Your task to perform on an android device: Open internet settings Image 0: 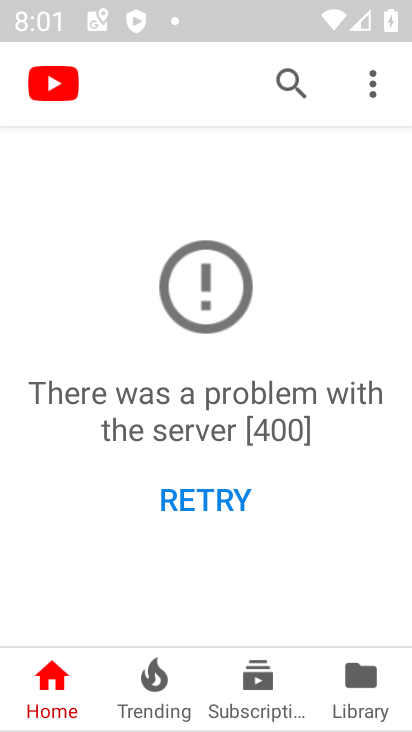
Step 0: press home button
Your task to perform on an android device: Open internet settings Image 1: 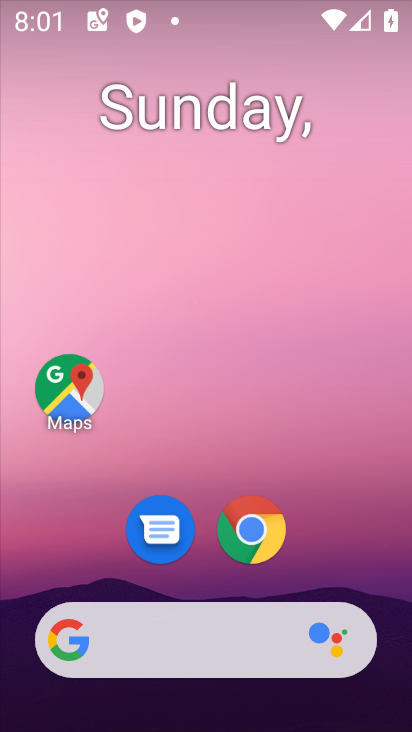
Step 1: drag from (346, 533) to (348, 152)
Your task to perform on an android device: Open internet settings Image 2: 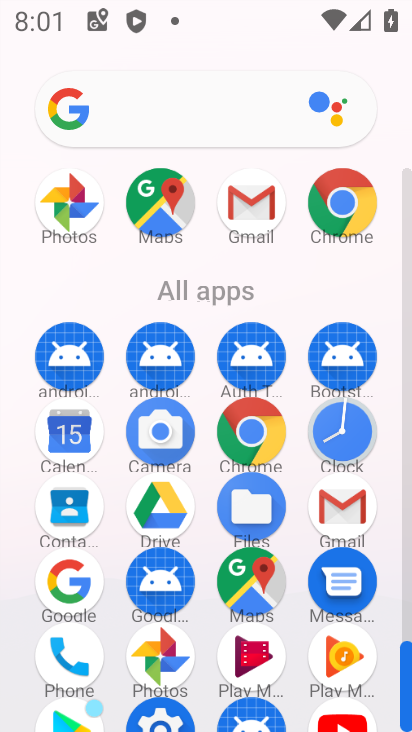
Step 2: drag from (216, 691) to (192, 338)
Your task to perform on an android device: Open internet settings Image 3: 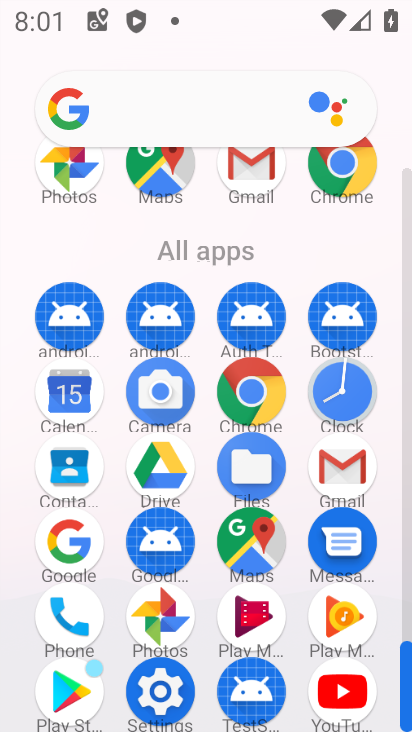
Step 3: click (178, 702)
Your task to perform on an android device: Open internet settings Image 4: 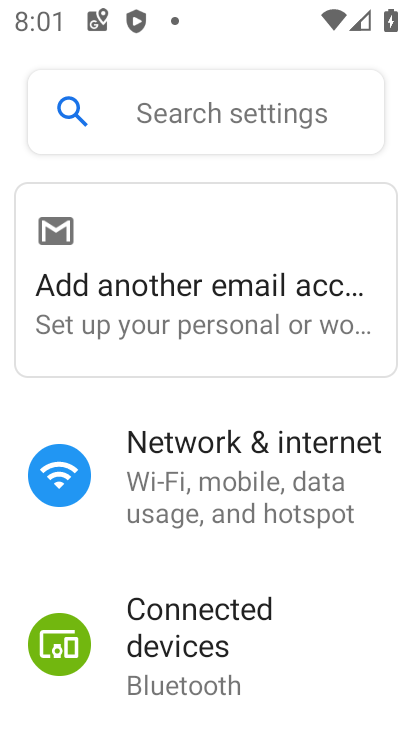
Step 4: click (292, 481)
Your task to perform on an android device: Open internet settings Image 5: 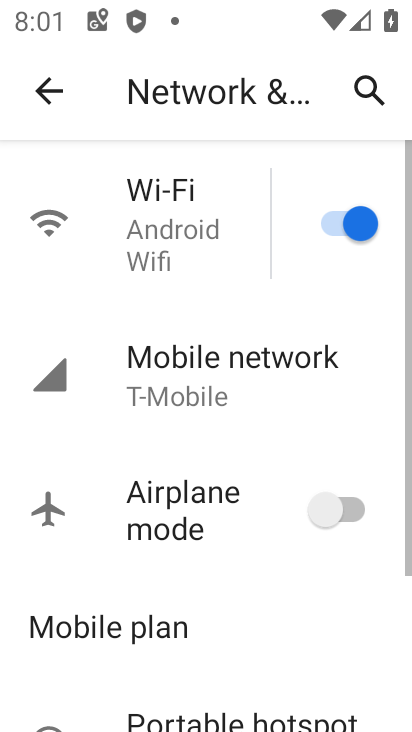
Step 5: drag from (262, 597) to (234, 274)
Your task to perform on an android device: Open internet settings Image 6: 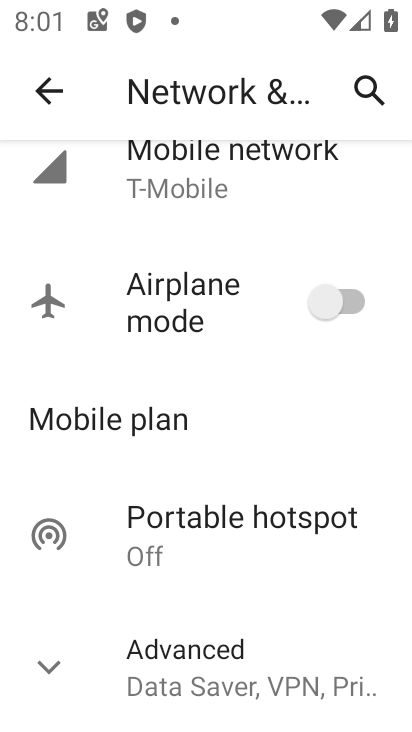
Step 6: drag from (229, 606) to (234, 348)
Your task to perform on an android device: Open internet settings Image 7: 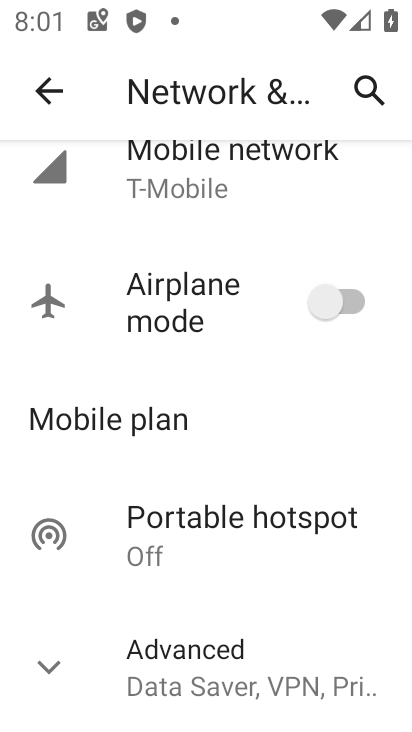
Step 7: drag from (190, 222) to (227, 577)
Your task to perform on an android device: Open internet settings Image 8: 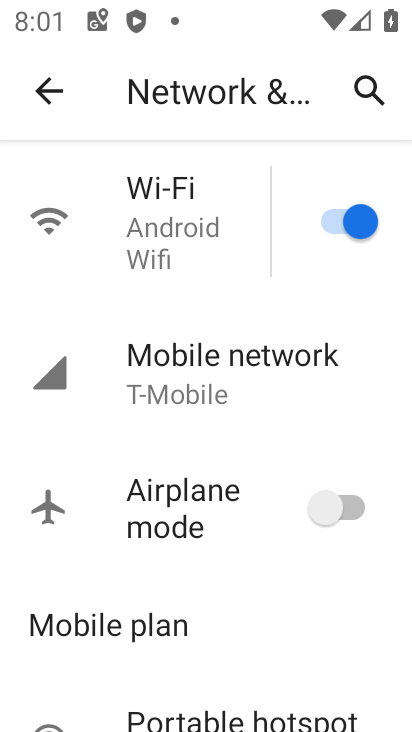
Step 8: click (205, 347)
Your task to perform on an android device: Open internet settings Image 9: 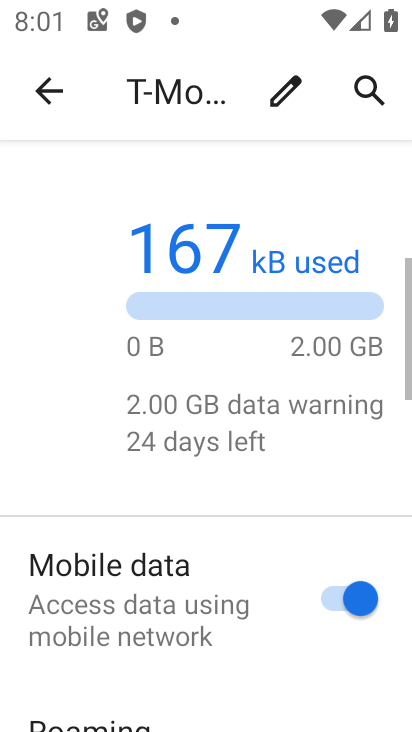
Step 9: task complete